Your task to perform on an android device: Search for the best selling video games at Target Image 0: 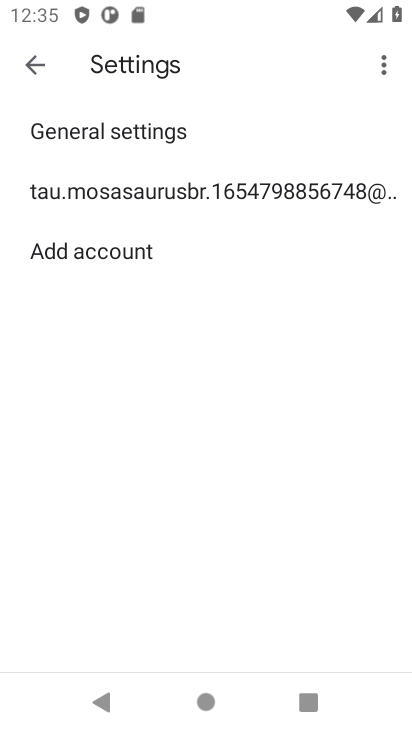
Step 0: press home button
Your task to perform on an android device: Search for the best selling video games at Target Image 1: 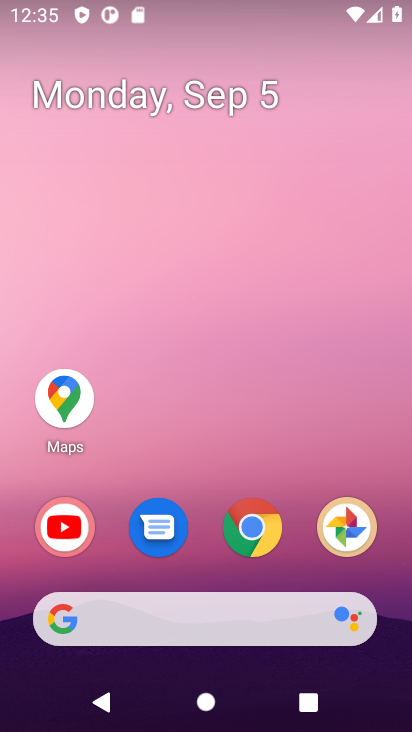
Step 1: click (241, 531)
Your task to perform on an android device: Search for the best selling video games at Target Image 2: 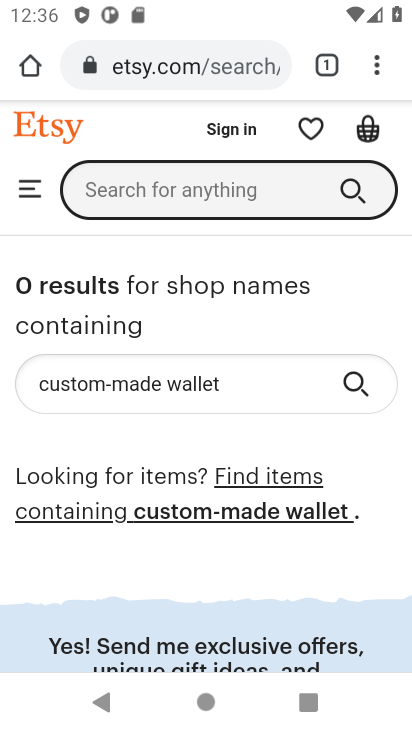
Step 2: click (154, 67)
Your task to perform on an android device: Search for the best selling video games at Target Image 3: 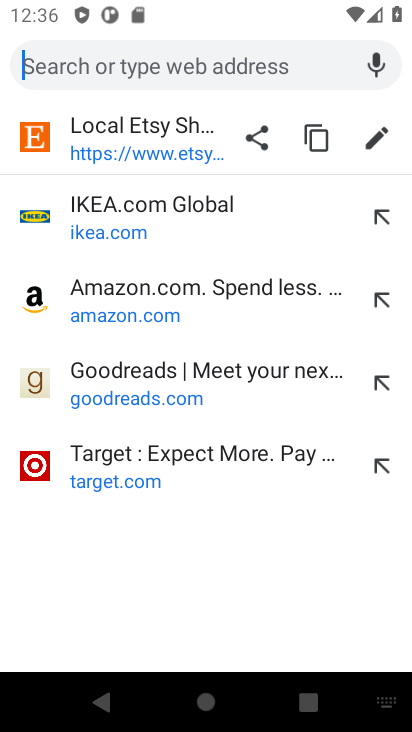
Step 3: type "target"
Your task to perform on an android device: Search for the best selling video games at Target Image 4: 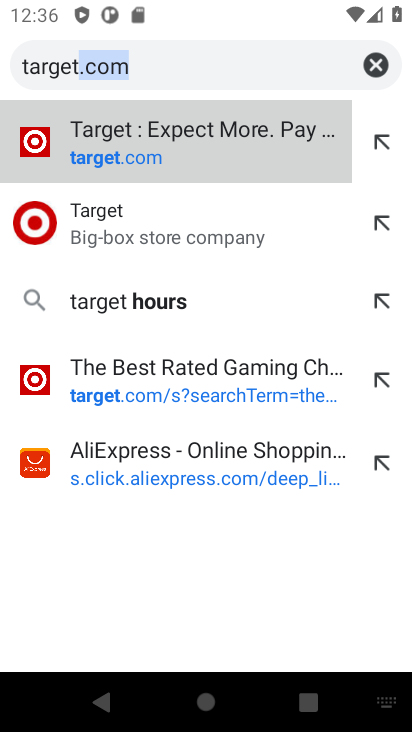
Step 4: click (94, 140)
Your task to perform on an android device: Search for the best selling video games at Target Image 5: 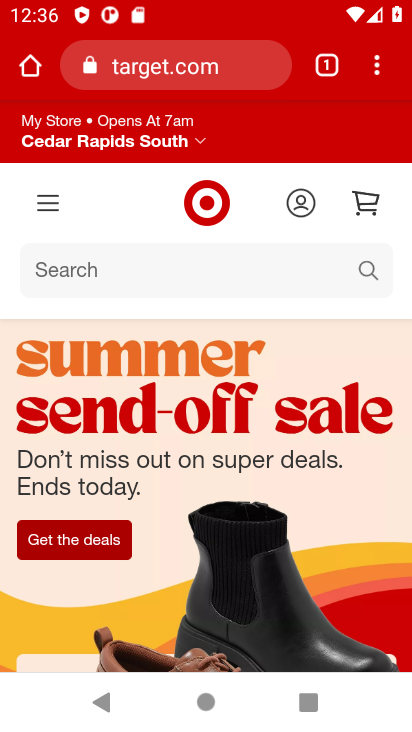
Step 5: click (276, 272)
Your task to perform on an android device: Search for the best selling video games at Target Image 6: 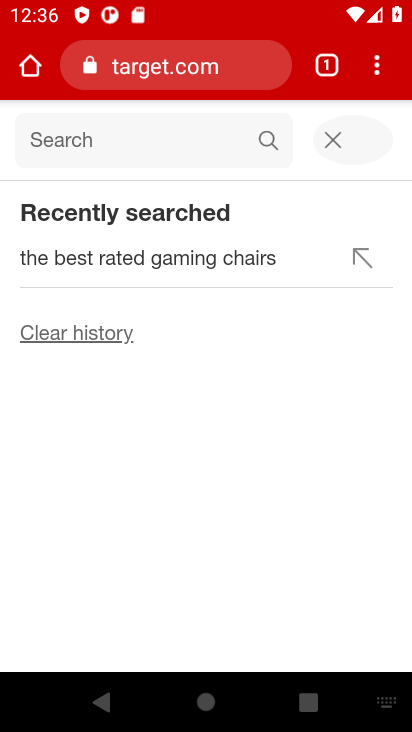
Step 6: type "the best selling video games "
Your task to perform on an android device: Search for the best selling video games at Target Image 7: 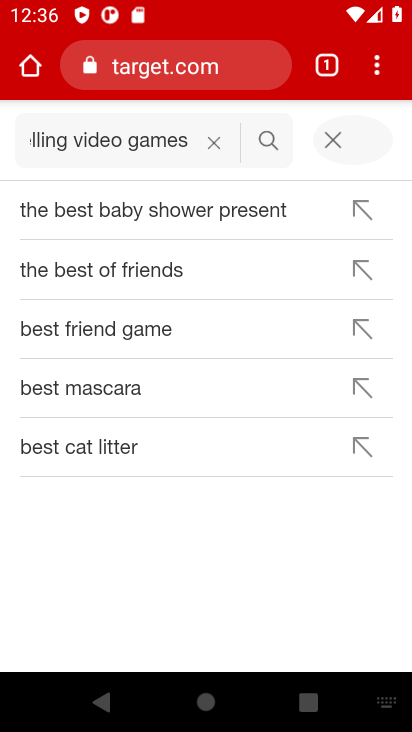
Step 7: click (274, 135)
Your task to perform on an android device: Search for the best selling video games at Target Image 8: 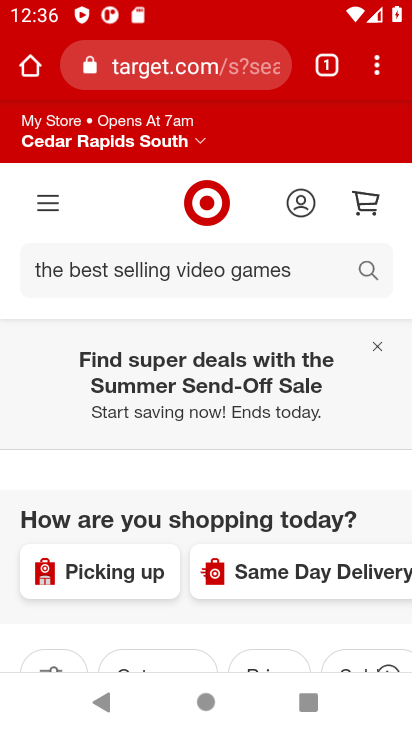
Step 8: click (367, 264)
Your task to perform on an android device: Search for the best selling video games at Target Image 9: 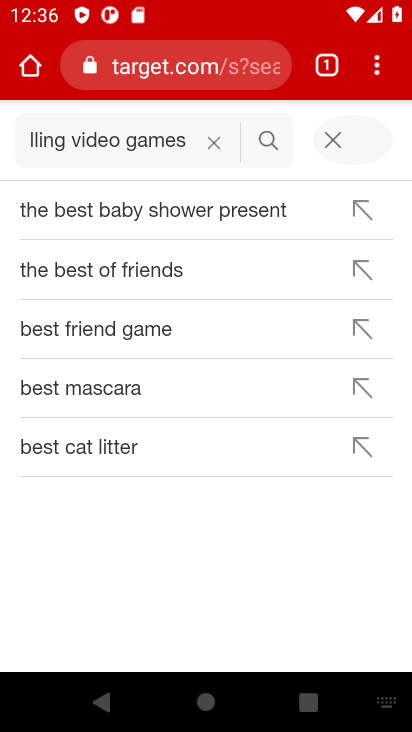
Step 9: click (260, 137)
Your task to perform on an android device: Search for the best selling video games at Target Image 10: 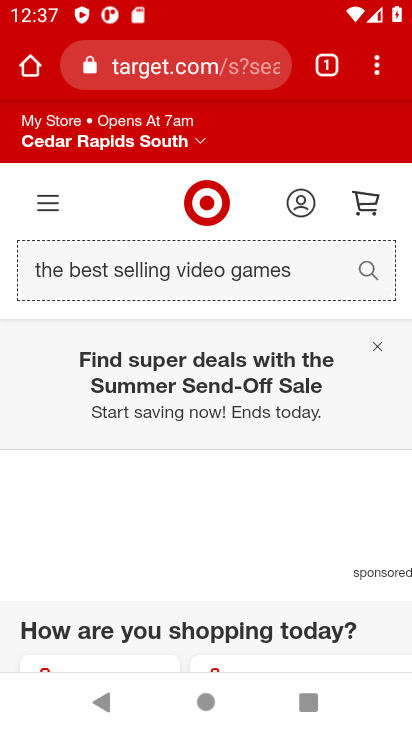
Step 10: task complete